Your task to perform on an android device: turn on javascript in the chrome app Image 0: 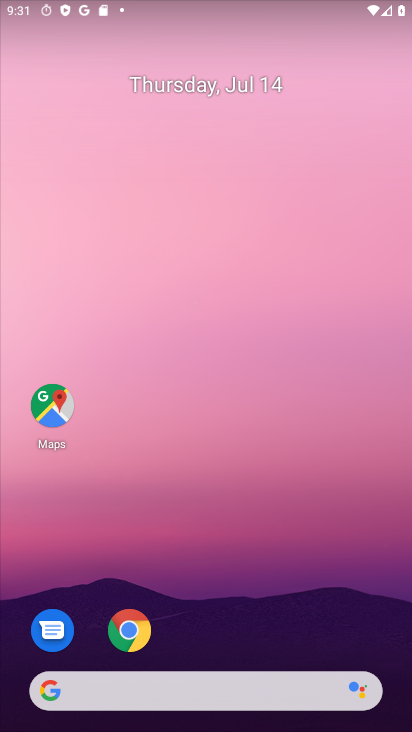
Step 0: click (116, 653)
Your task to perform on an android device: turn on javascript in the chrome app Image 1: 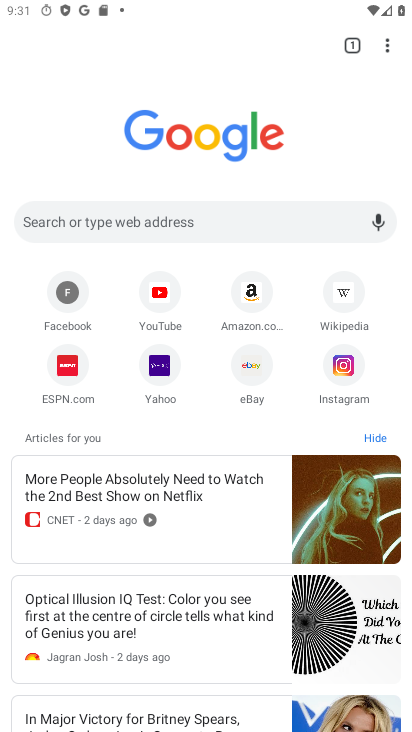
Step 1: click (387, 41)
Your task to perform on an android device: turn on javascript in the chrome app Image 2: 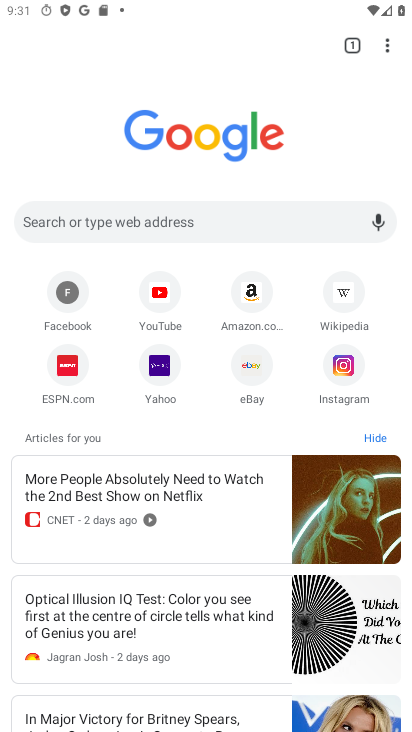
Step 2: click (389, 44)
Your task to perform on an android device: turn on javascript in the chrome app Image 3: 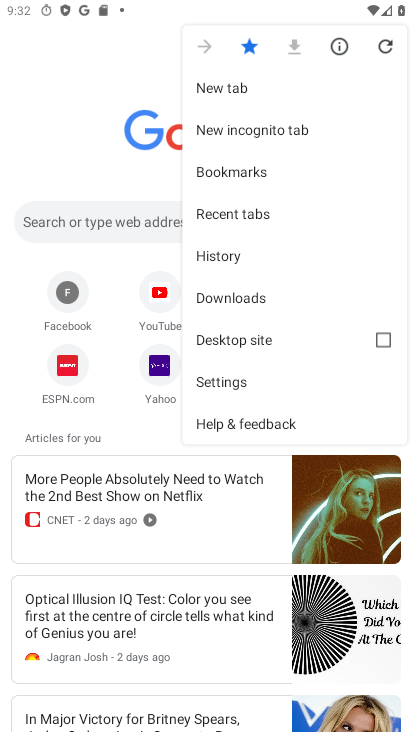
Step 3: click (223, 384)
Your task to perform on an android device: turn on javascript in the chrome app Image 4: 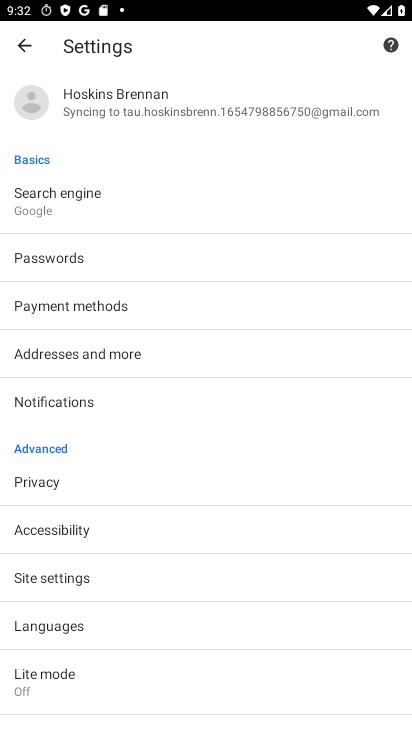
Step 4: click (64, 577)
Your task to perform on an android device: turn on javascript in the chrome app Image 5: 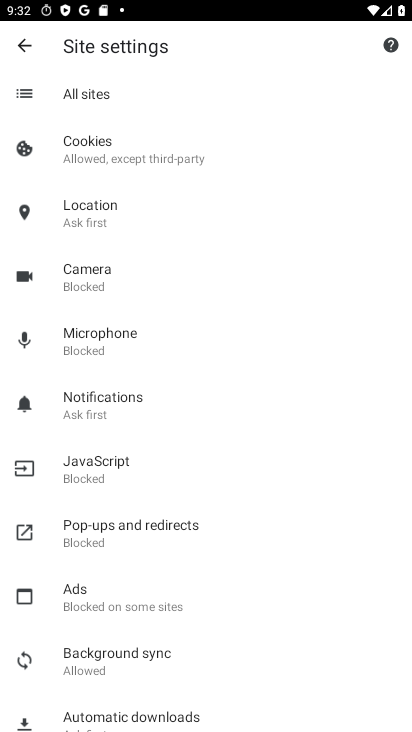
Step 5: click (96, 474)
Your task to perform on an android device: turn on javascript in the chrome app Image 6: 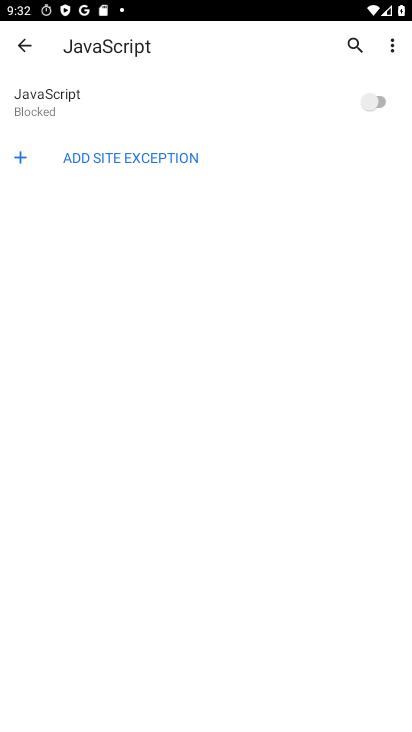
Step 6: click (367, 86)
Your task to perform on an android device: turn on javascript in the chrome app Image 7: 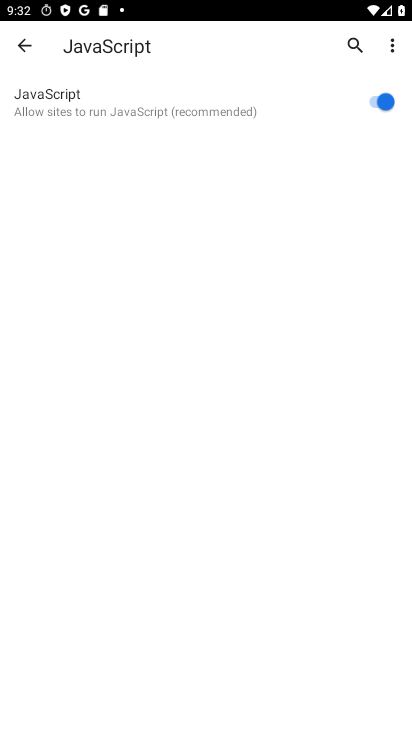
Step 7: task complete